Your task to perform on an android device: install app "The Home Depot" Image 0: 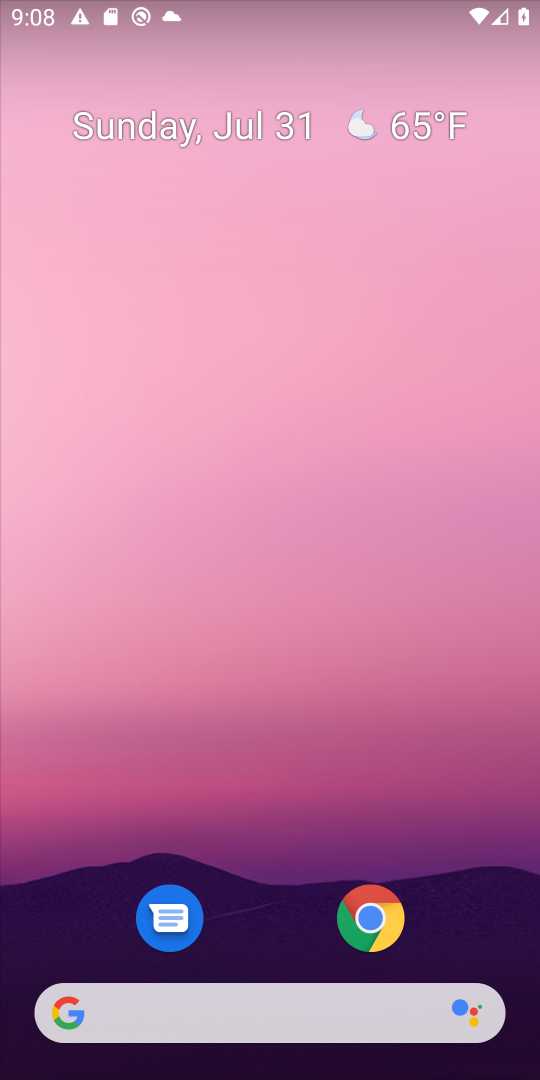
Step 0: drag from (311, 1053) to (521, 332)
Your task to perform on an android device: install app "The Home Depot" Image 1: 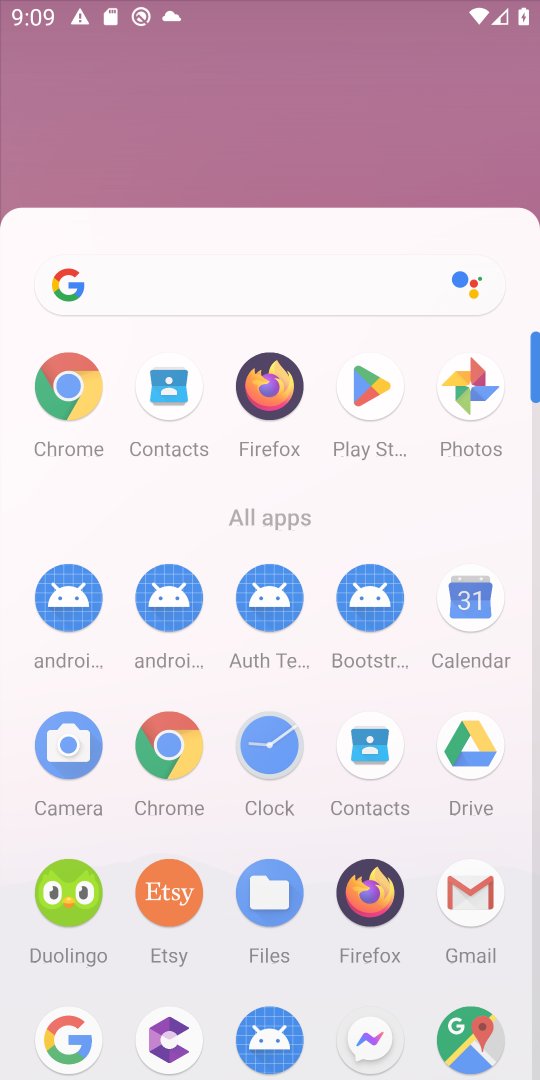
Step 1: click (350, 193)
Your task to perform on an android device: install app "The Home Depot" Image 2: 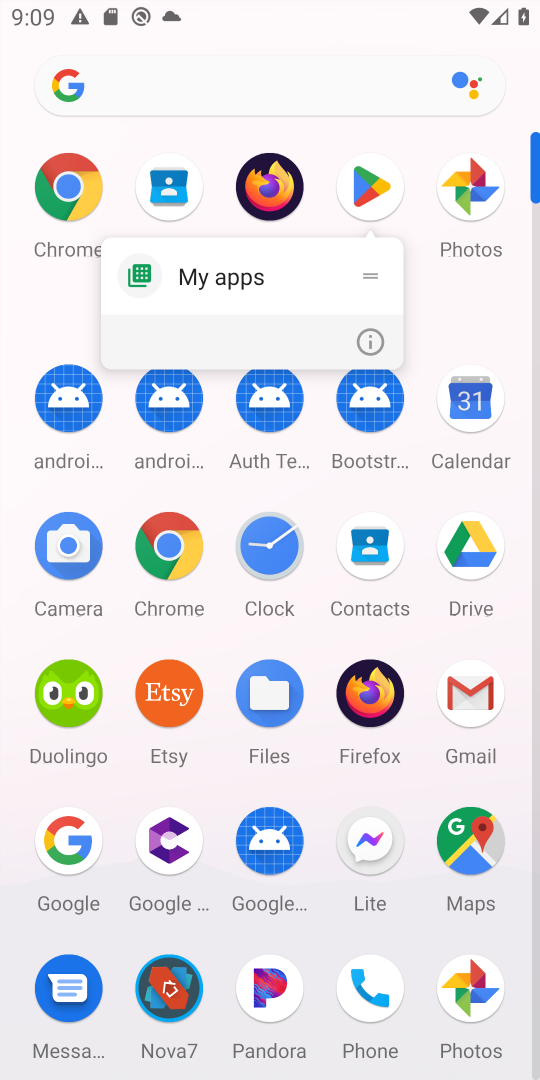
Step 2: click (350, 193)
Your task to perform on an android device: install app "The Home Depot" Image 3: 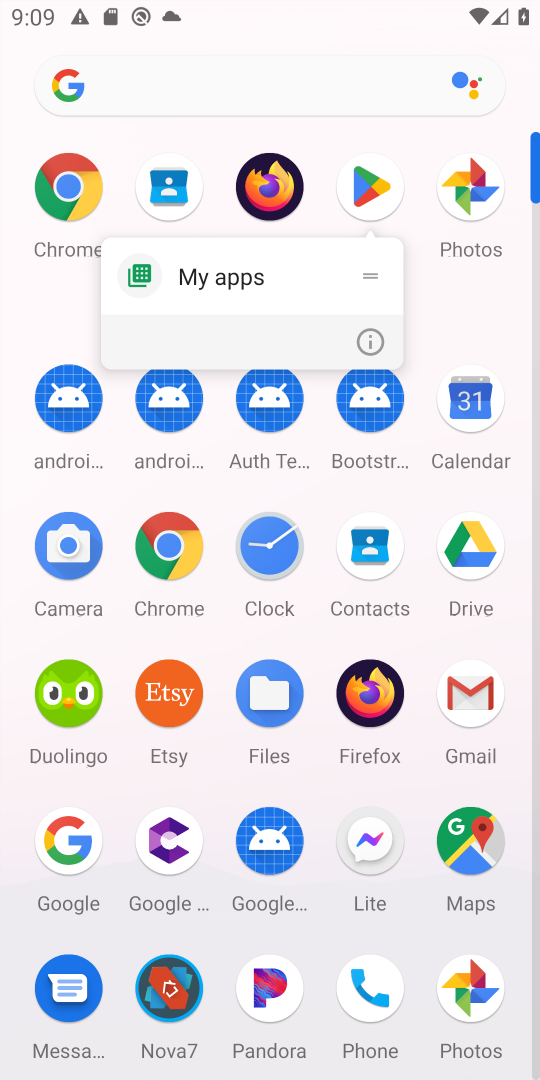
Step 3: click (370, 172)
Your task to perform on an android device: install app "The Home Depot" Image 4: 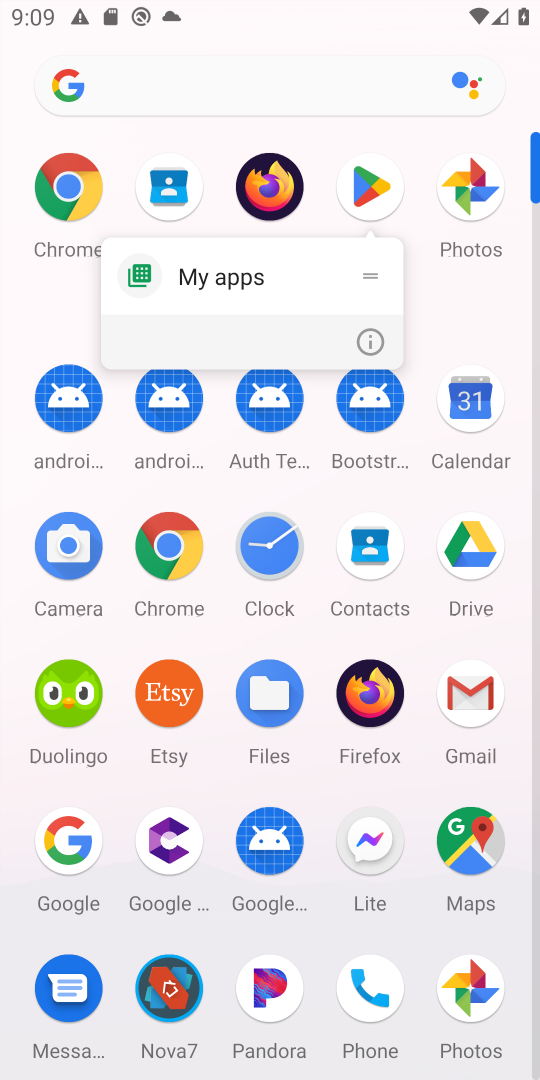
Step 4: click (368, 189)
Your task to perform on an android device: install app "The Home Depot" Image 5: 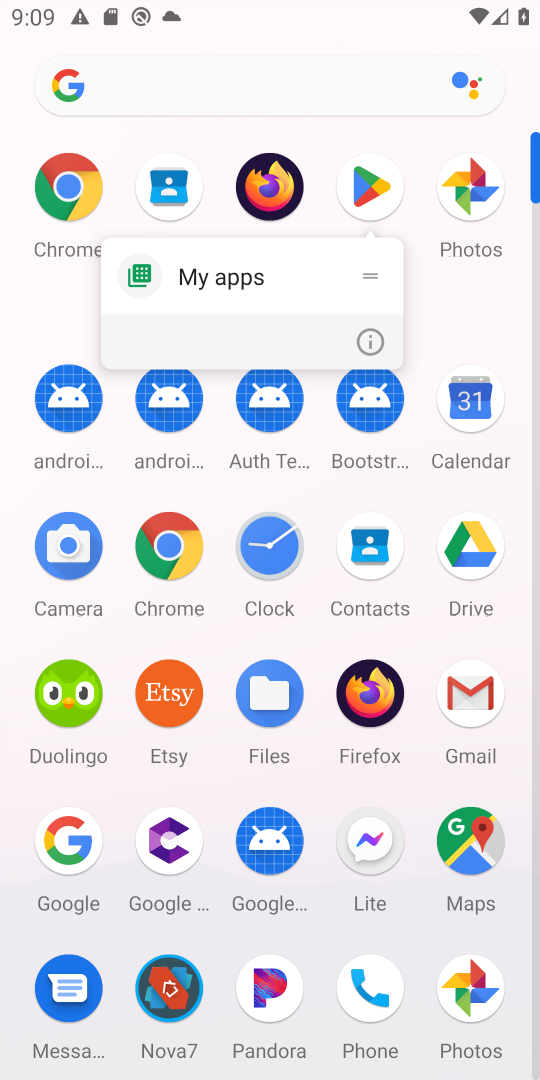
Step 5: click (372, 189)
Your task to perform on an android device: install app "The Home Depot" Image 6: 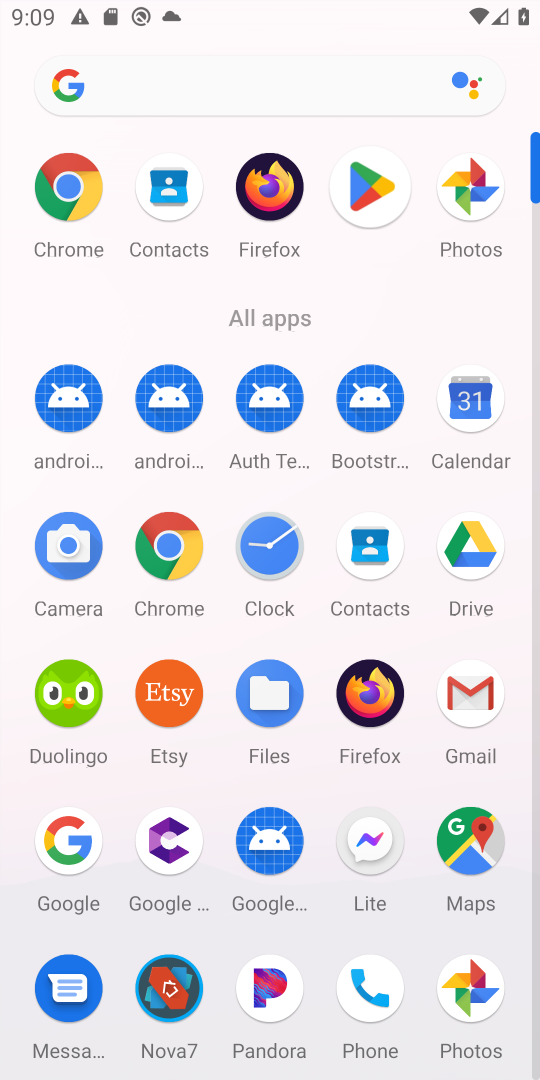
Step 6: click (372, 189)
Your task to perform on an android device: install app "The Home Depot" Image 7: 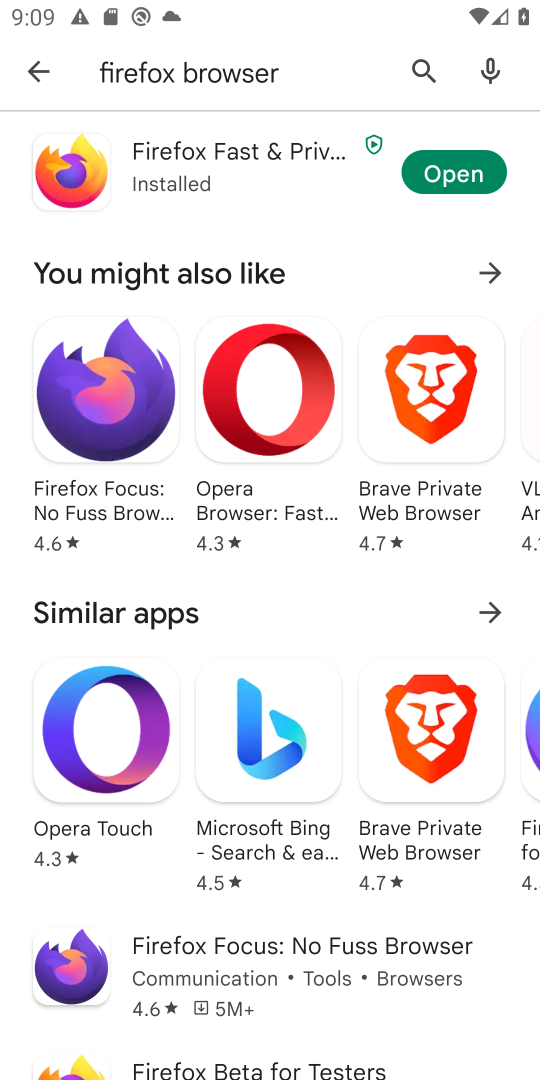
Step 7: click (413, 65)
Your task to perform on an android device: install app "The Home Depot" Image 8: 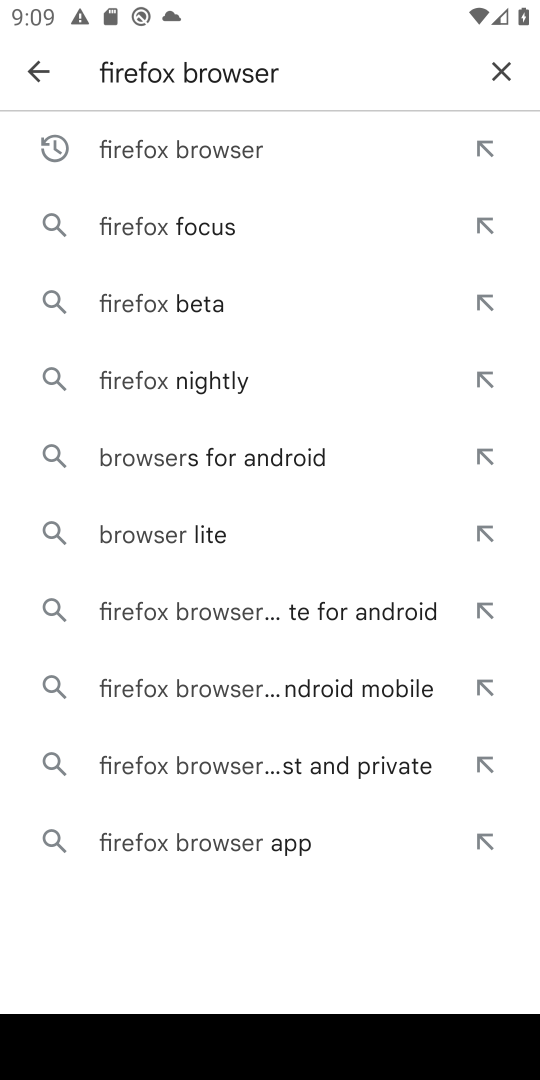
Step 8: click (509, 62)
Your task to perform on an android device: install app "The Home Depot" Image 9: 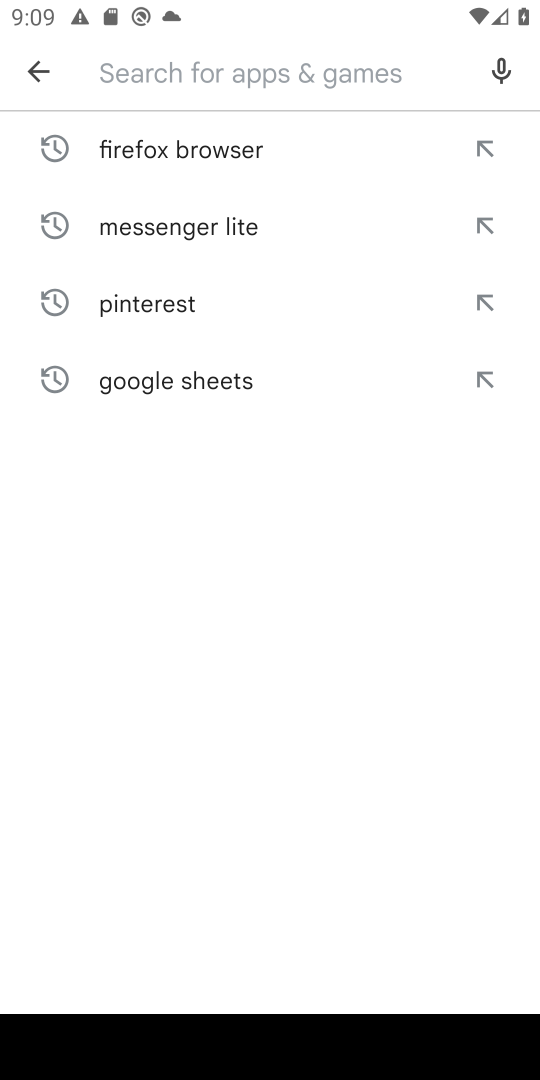
Step 9: type "The Home Depot"
Your task to perform on an android device: install app "The Home Depot" Image 10: 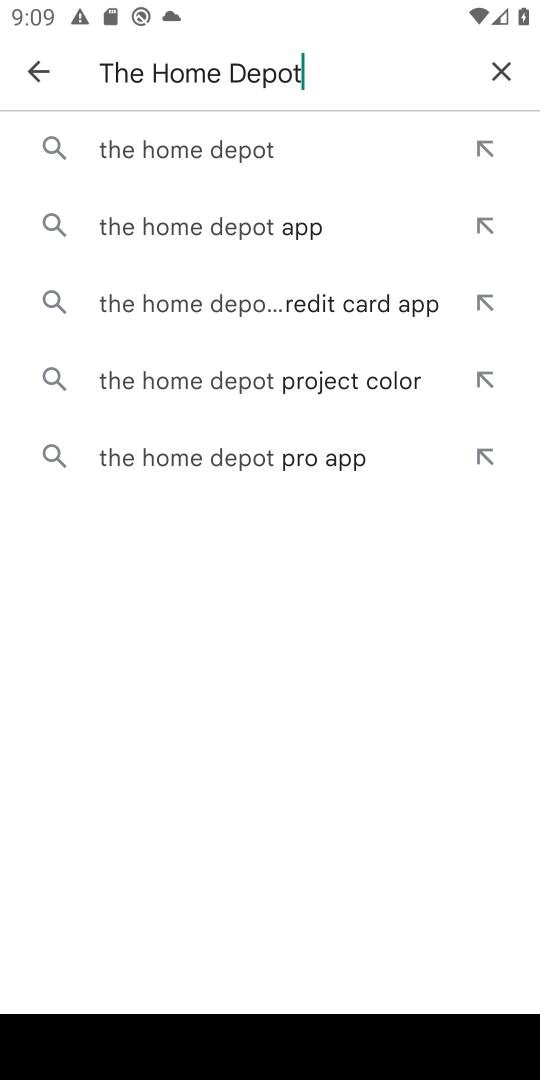
Step 10: type ""
Your task to perform on an android device: install app "The Home Depot" Image 11: 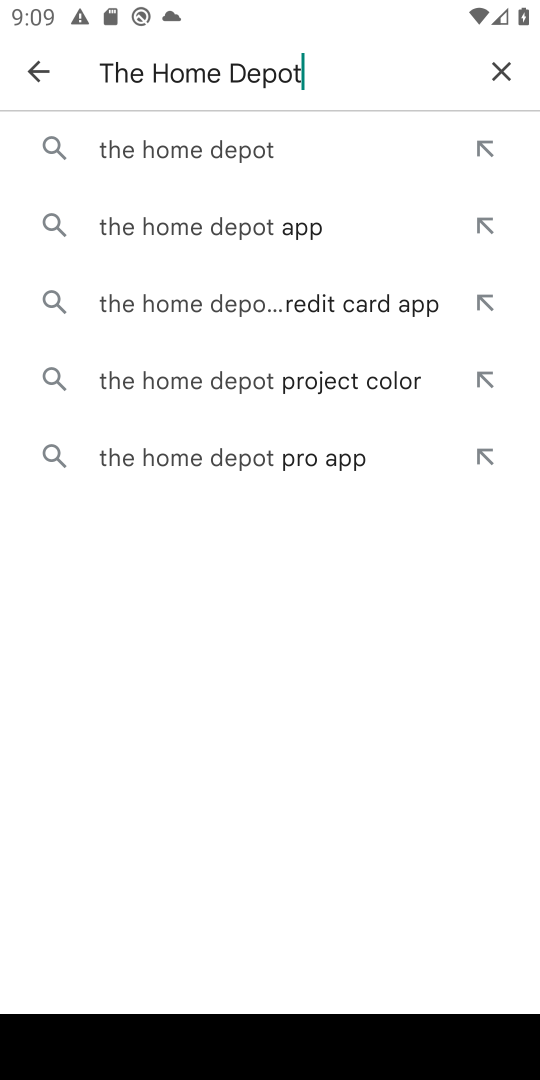
Step 11: click (289, 147)
Your task to perform on an android device: install app "The Home Depot" Image 12: 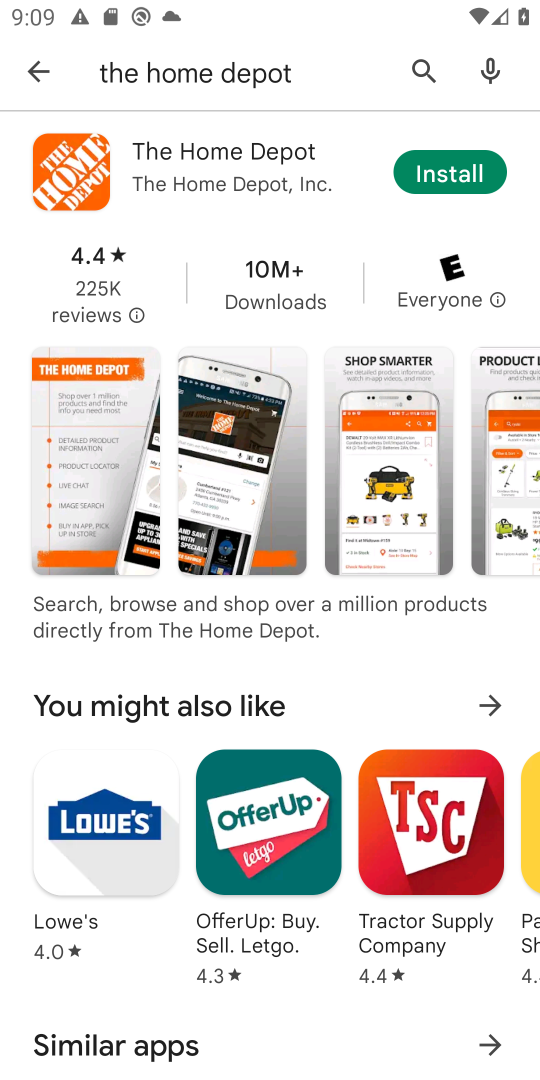
Step 12: click (402, 164)
Your task to perform on an android device: install app "The Home Depot" Image 13: 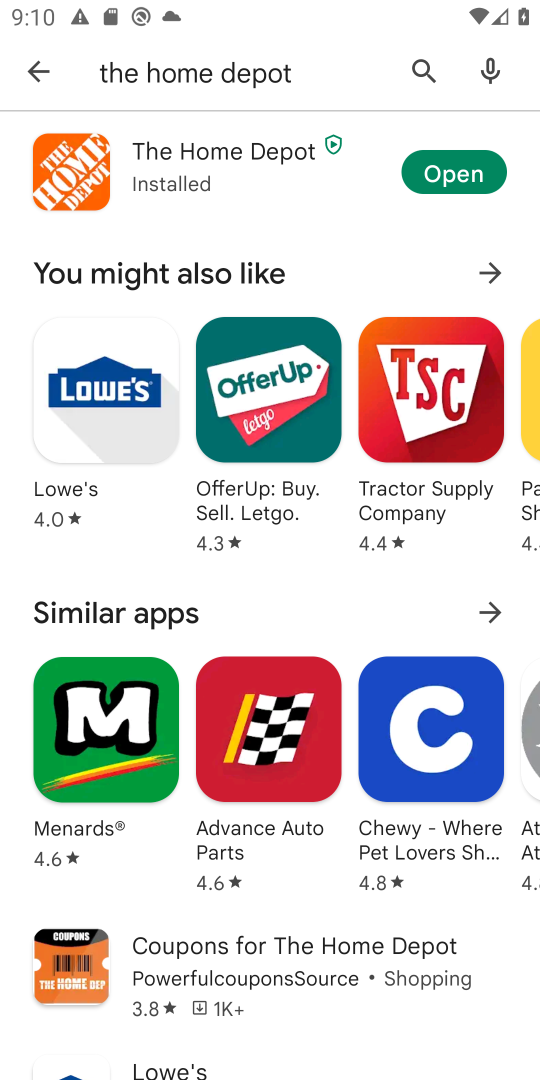
Step 13: task complete